Your task to perform on an android device: Show me recent news Image 0: 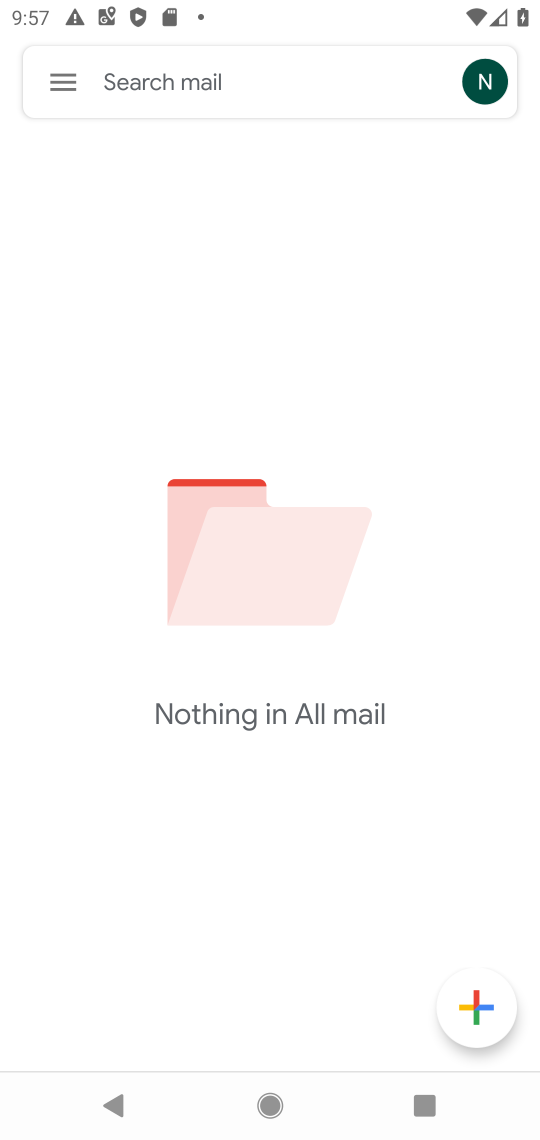
Step 0: press home button
Your task to perform on an android device: Show me recent news Image 1: 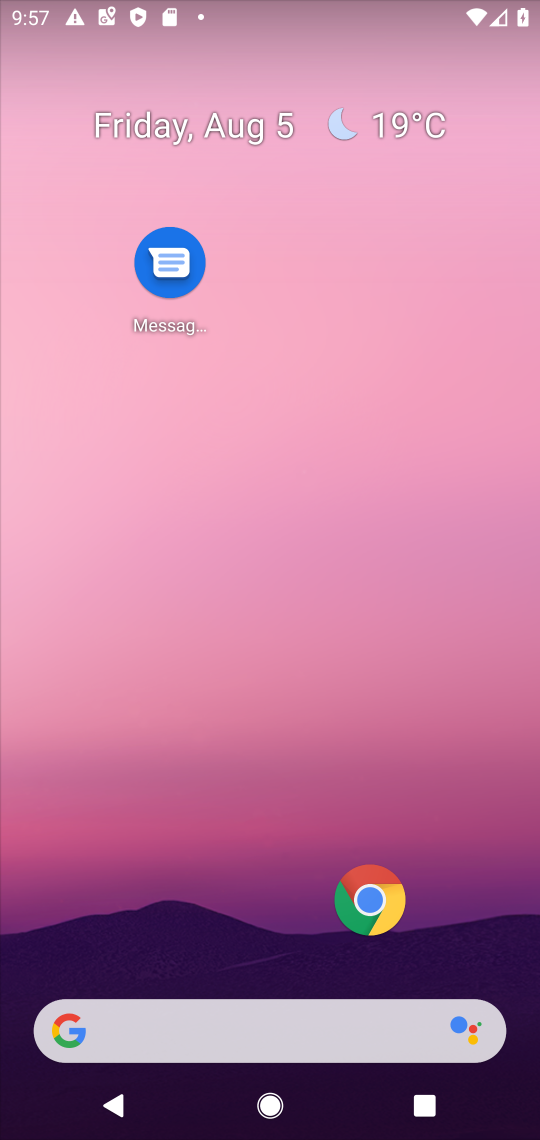
Step 1: drag from (256, 919) to (249, 55)
Your task to perform on an android device: Show me recent news Image 2: 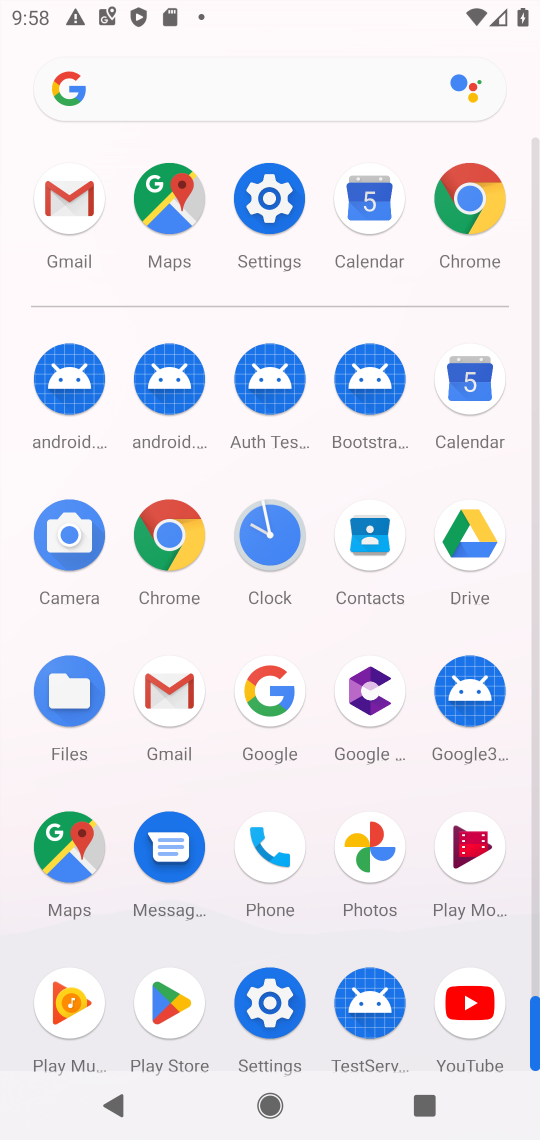
Step 2: click (162, 536)
Your task to perform on an android device: Show me recent news Image 3: 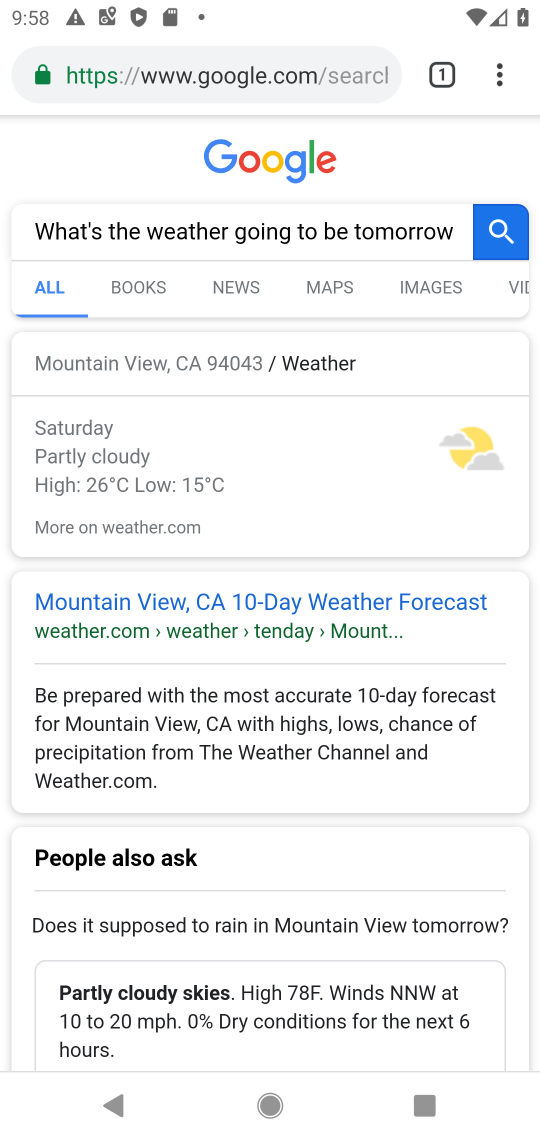
Step 3: click (152, 64)
Your task to perform on an android device: Show me recent news Image 4: 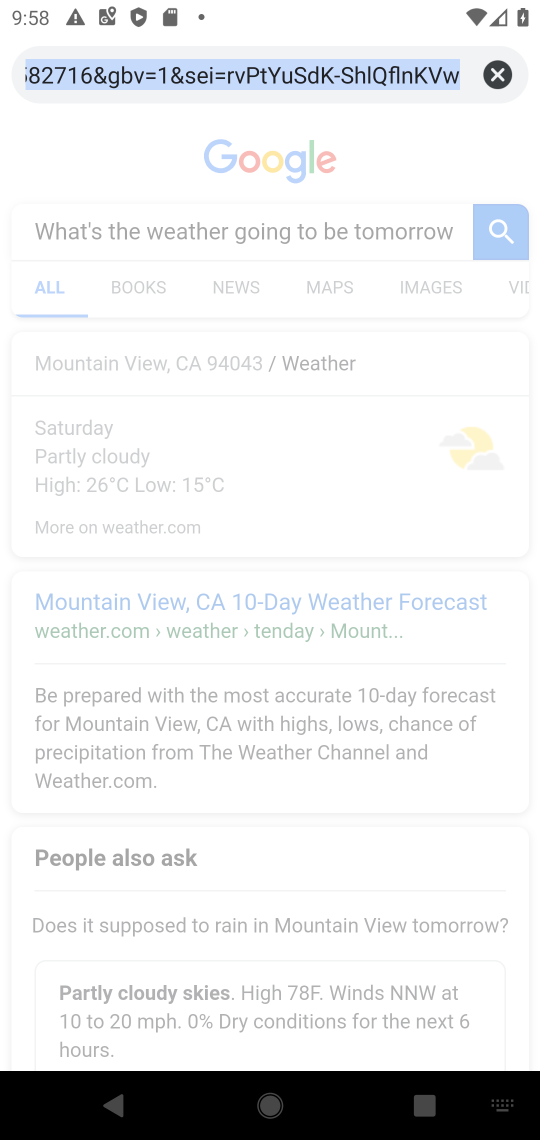
Step 4: click (499, 70)
Your task to perform on an android device: Show me recent news Image 5: 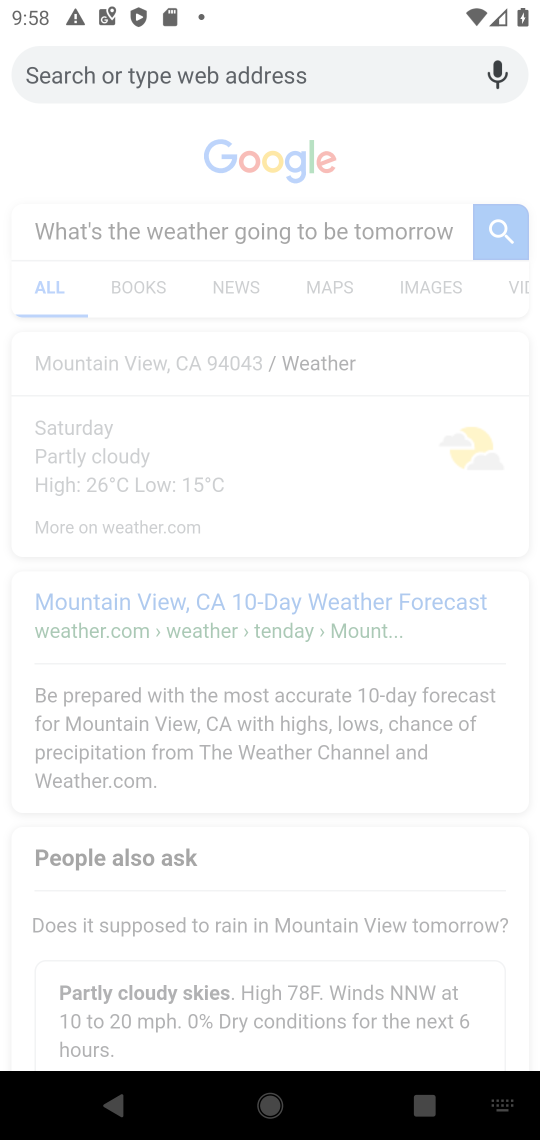
Step 5: type "Show me recent news"
Your task to perform on an android device: Show me recent news Image 6: 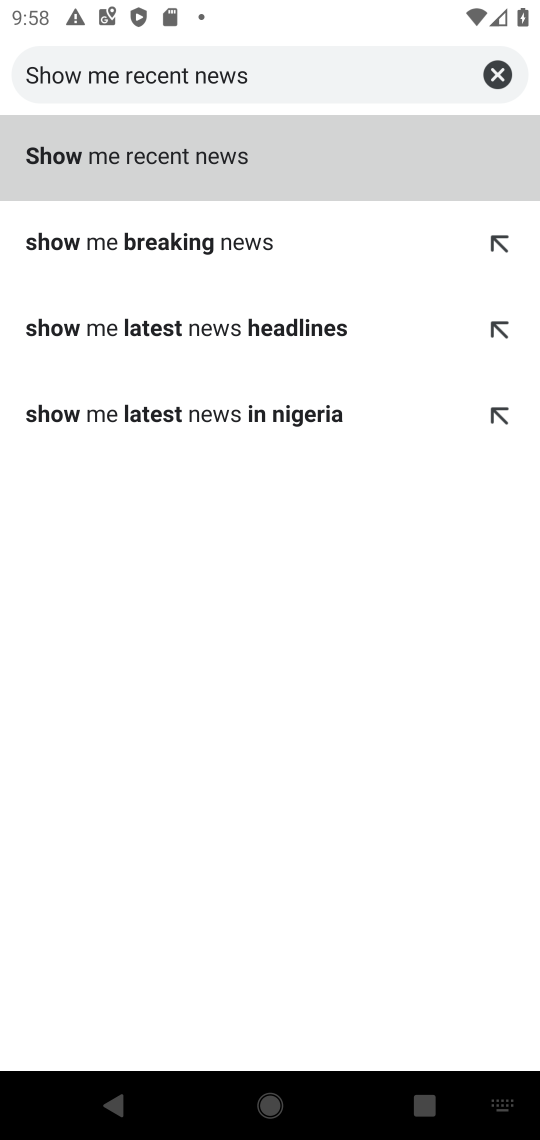
Step 6: click (157, 153)
Your task to perform on an android device: Show me recent news Image 7: 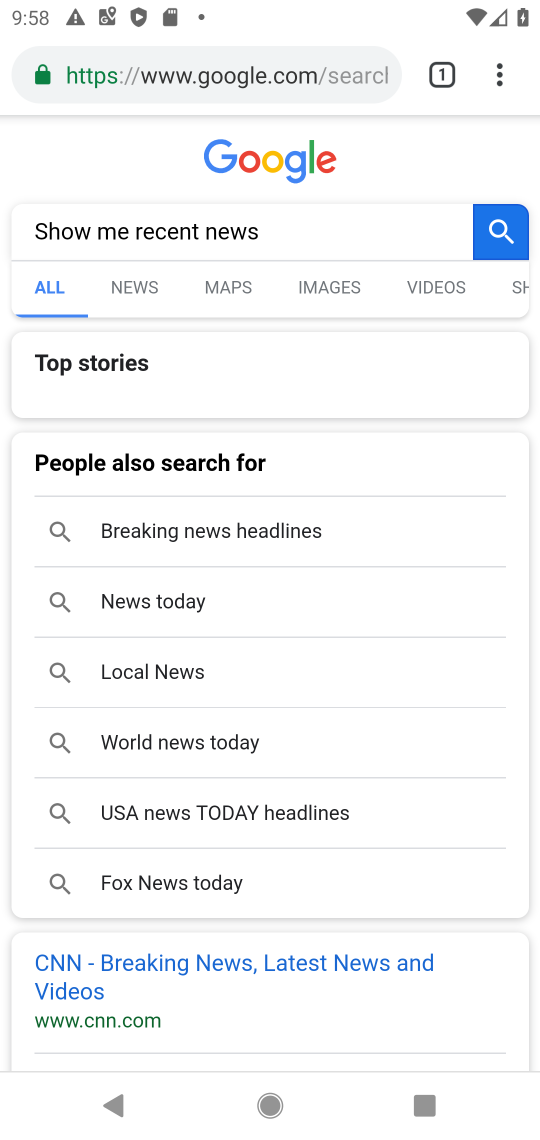
Step 7: click (144, 280)
Your task to perform on an android device: Show me recent news Image 8: 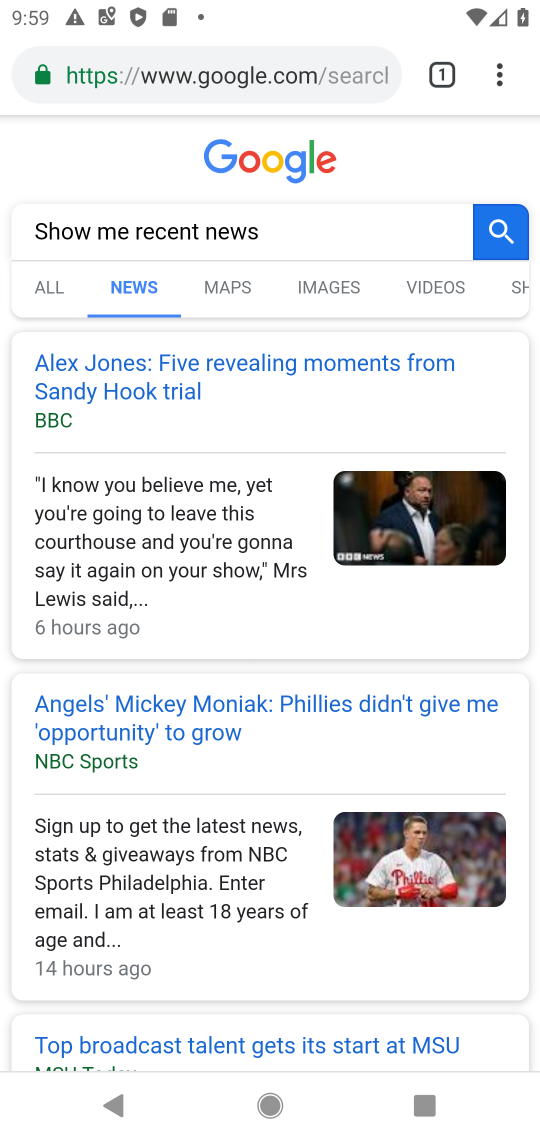
Step 8: task complete